Your task to perform on an android device: Open location settings Image 0: 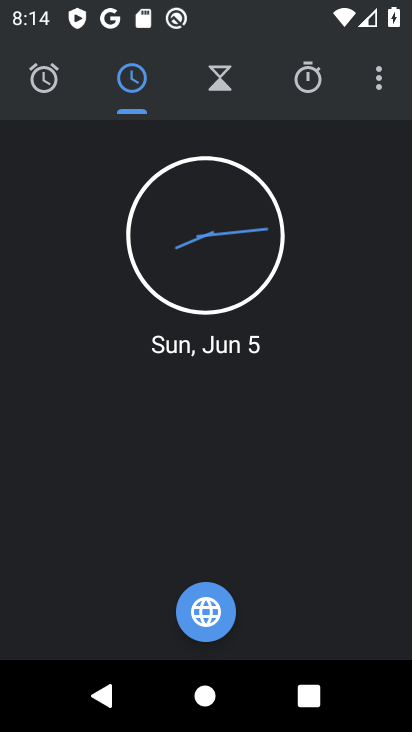
Step 0: press home button
Your task to perform on an android device: Open location settings Image 1: 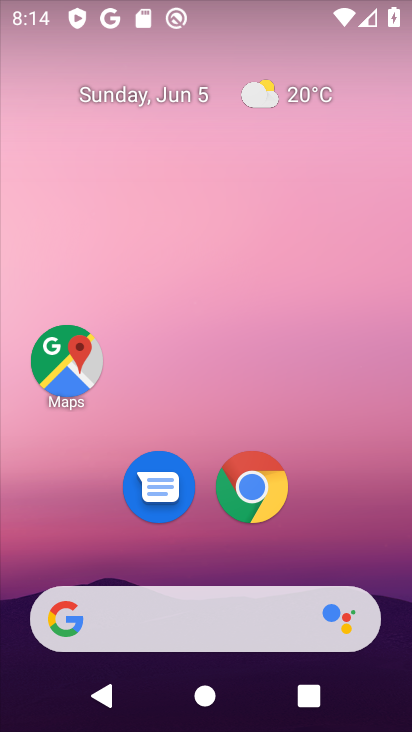
Step 1: drag from (176, 582) to (205, 4)
Your task to perform on an android device: Open location settings Image 2: 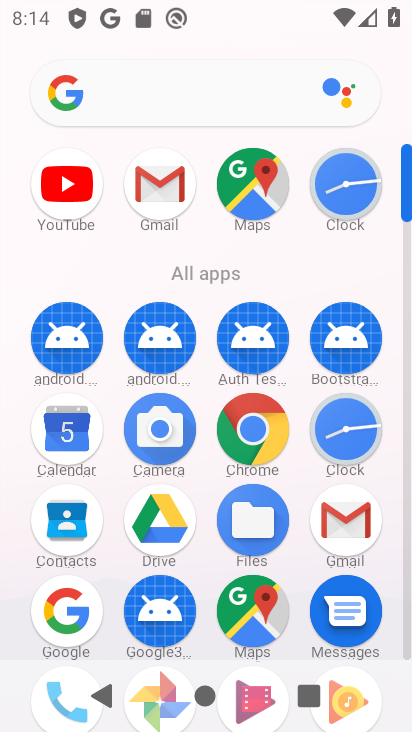
Step 2: drag from (210, 557) to (243, 176)
Your task to perform on an android device: Open location settings Image 3: 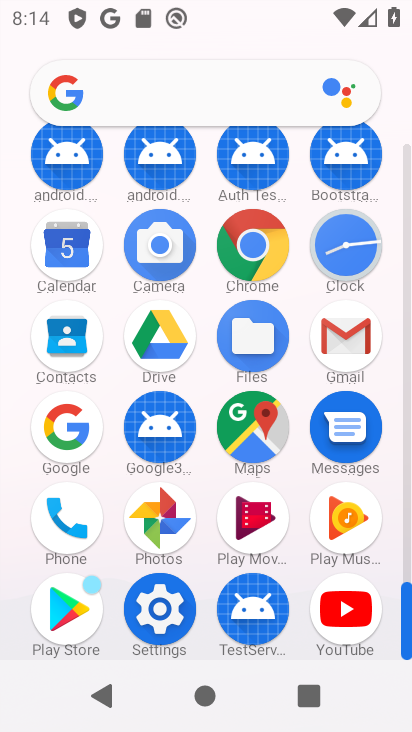
Step 3: click (160, 620)
Your task to perform on an android device: Open location settings Image 4: 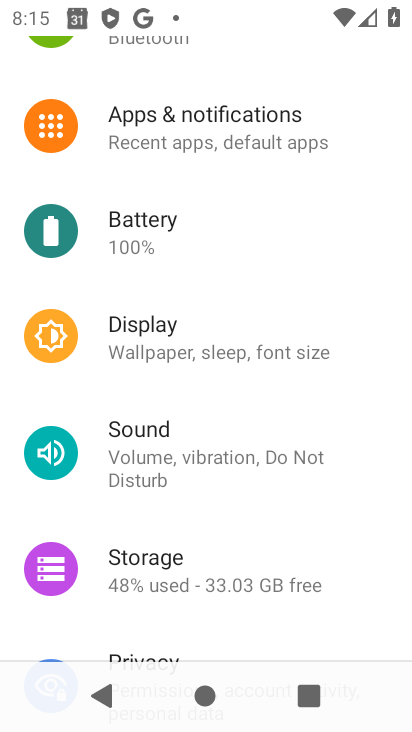
Step 4: drag from (198, 523) to (241, 171)
Your task to perform on an android device: Open location settings Image 5: 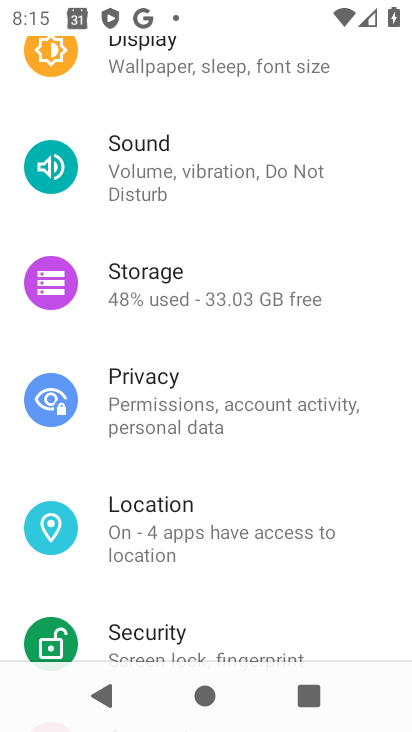
Step 5: click (168, 534)
Your task to perform on an android device: Open location settings Image 6: 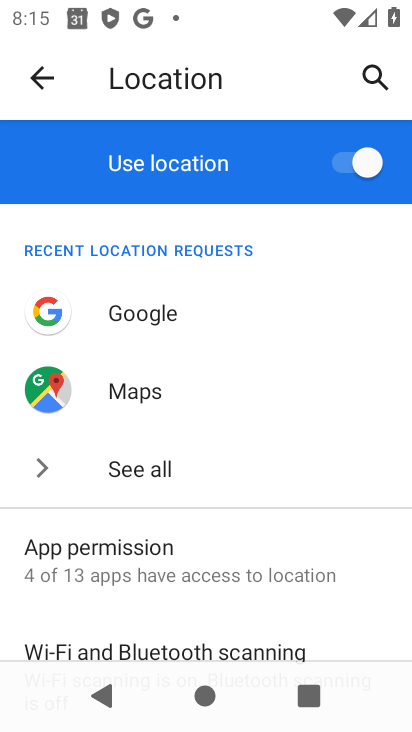
Step 6: task complete